Your task to perform on an android device: Search for Mexican restaurants on Maps Image 0: 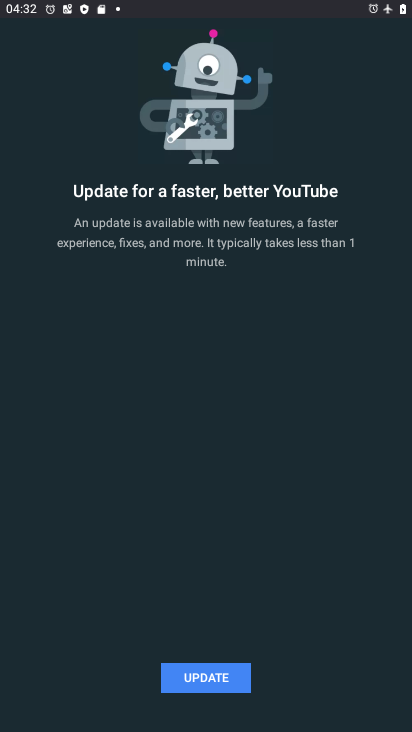
Step 0: press home button
Your task to perform on an android device: Search for Mexican restaurants on Maps Image 1: 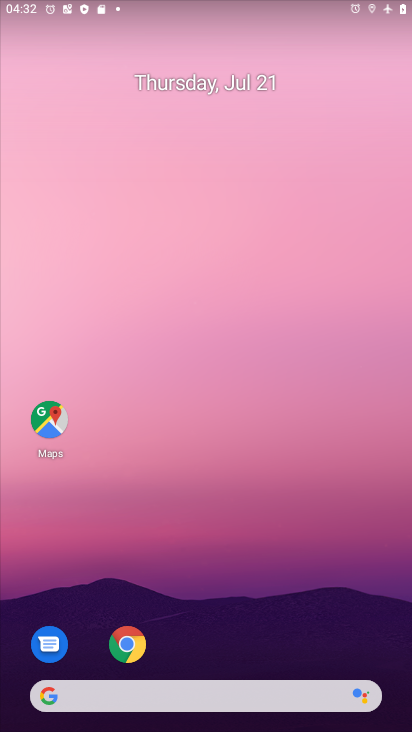
Step 1: click (54, 423)
Your task to perform on an android device: Search for Mexican restaurants on Maps Image 2: 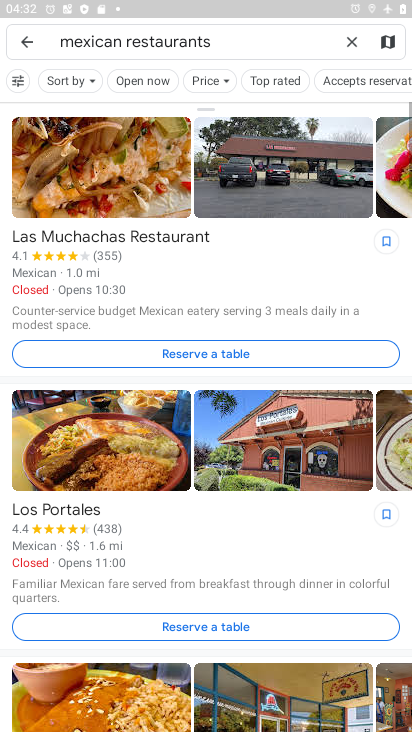
Step 2: task complete